Your task to perform on an android device: turn on javascript in the chrome app Image 0: 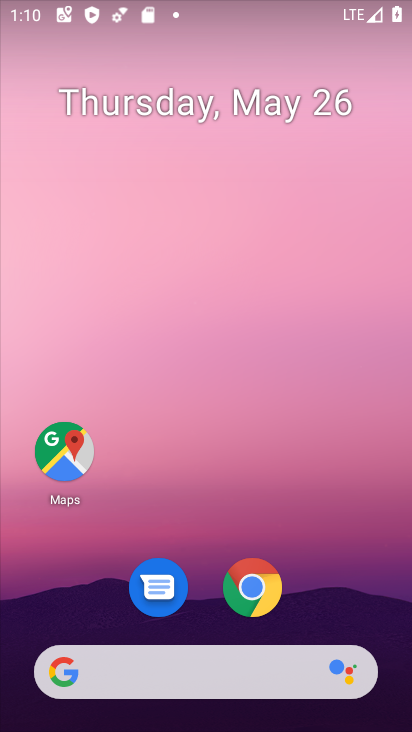
Step 0: drag from (331, 580) to (327, 154)
Your task to perform on an android device: turn on javascript in the chrome app Image 1: 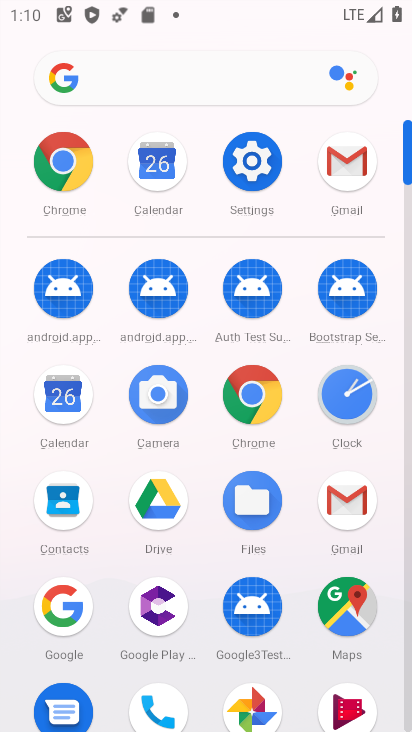
Step 1: click (254, 407)
Your task to perform on an android device: turn on javascript in the chrome app Image 2: 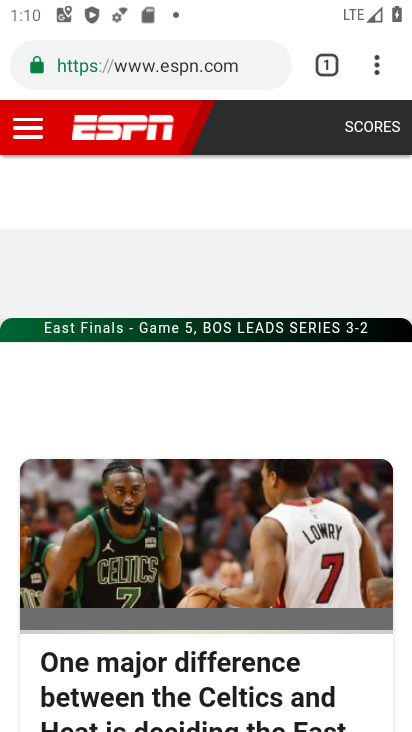
Step 2: click (377, 67)
Your task to perform on an android device: turn on javascript in the chrome app Image 3: 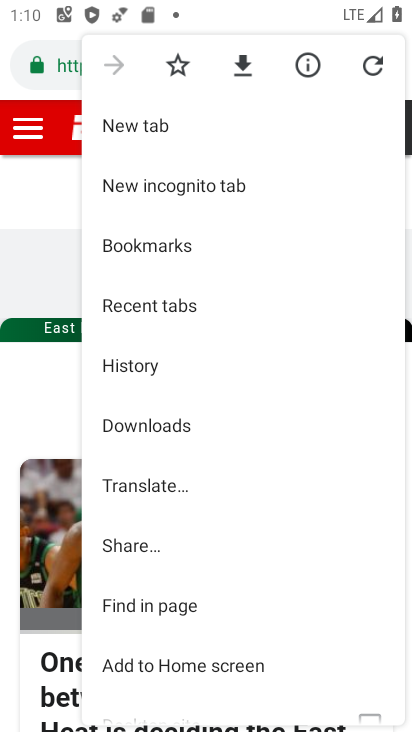
Step 3: drag from (278, 531) to (271, 390)
Your task to perform on an android device: turn on javascript in the chrome app Image 4: 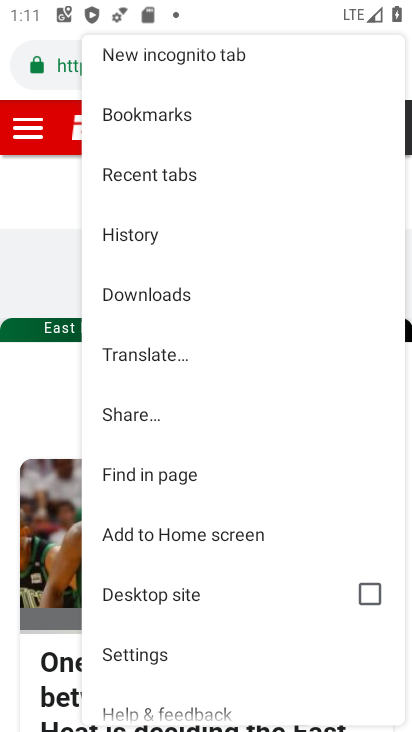
Step 4: drag from (288, 621) to (294, 467)
Your task to perform on an android device: turn on javascript in the chrome app Image 5: 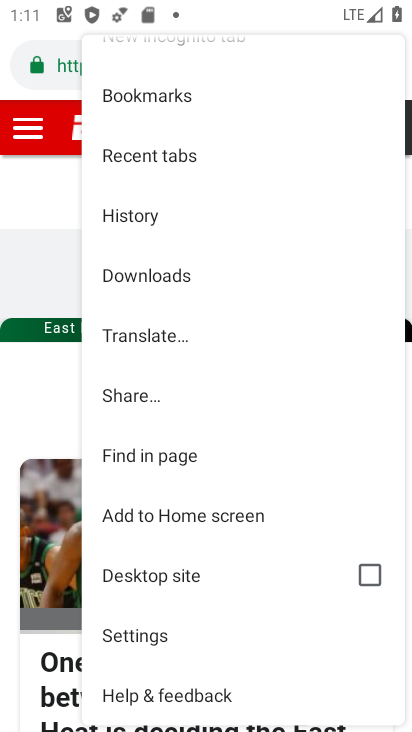
Step 5: click (146, 649)
Your task to perform on an android device: turn on javascript in the chrome app Image 6: 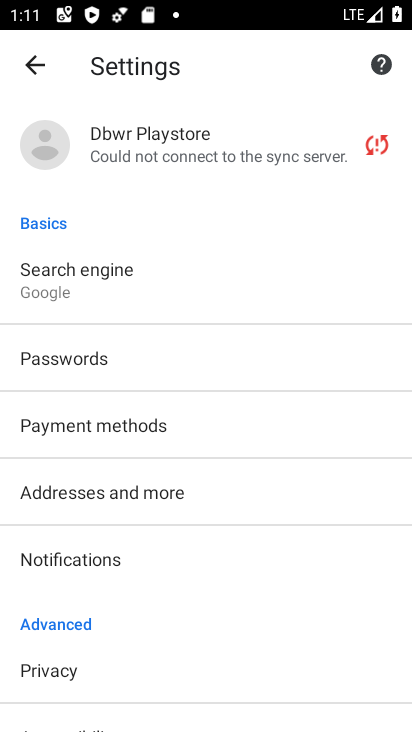
Step 6: drag from (288, 612) to (280, 437)
Your task to perform on an android device: turn on javascript in the chrome app Image 7: 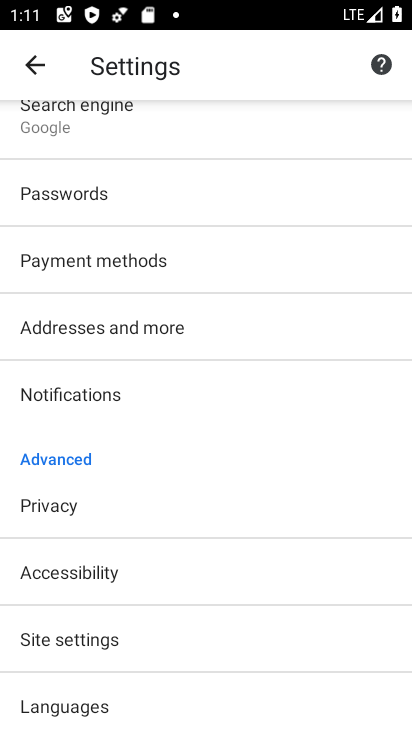
Step 7: drag from (276, 630) to (280, 445)
Your task to perform on an android device: turn on javascript in the chrome app Image 8: 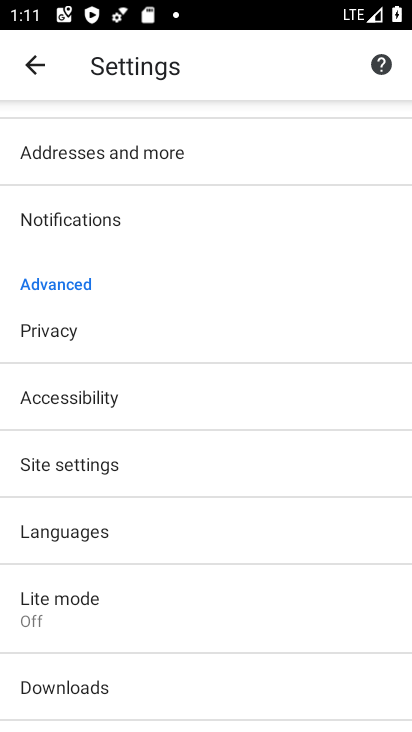
Step 8: drag from (284, 639) to (283, 495)
Your task to perform on an android device: turn on javascript in the chrome app Image 9: 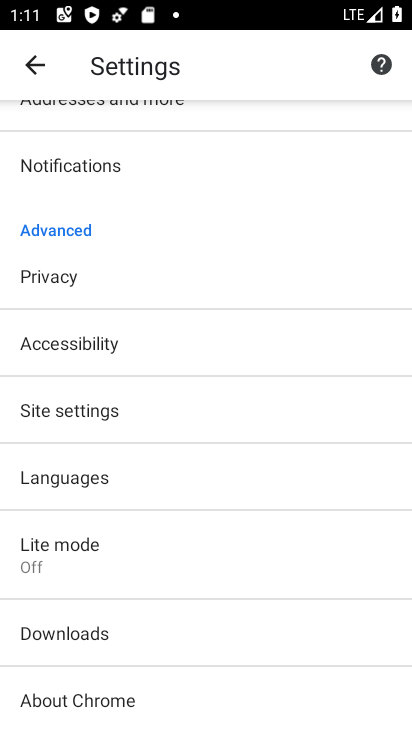
Step 9: drag from (223, 377) to (227, 510)
Your task to perform on an android device: turn on javascript in the chrome app Image 10: 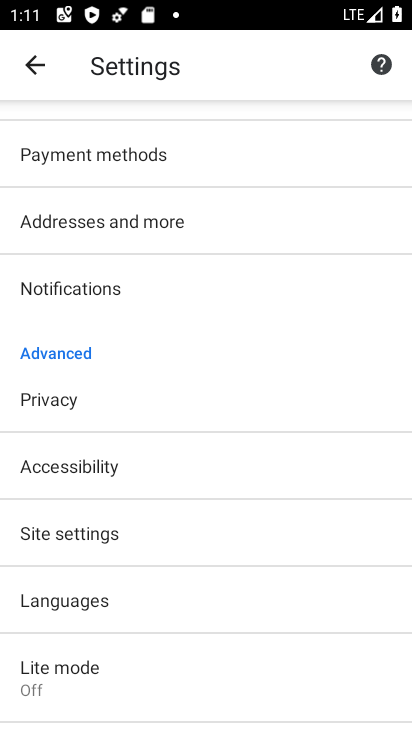
Step 10: drag from (251, 625) to (261, 417)
Your task to perform on an android device: turn on javascript in the chrome app Image 11: 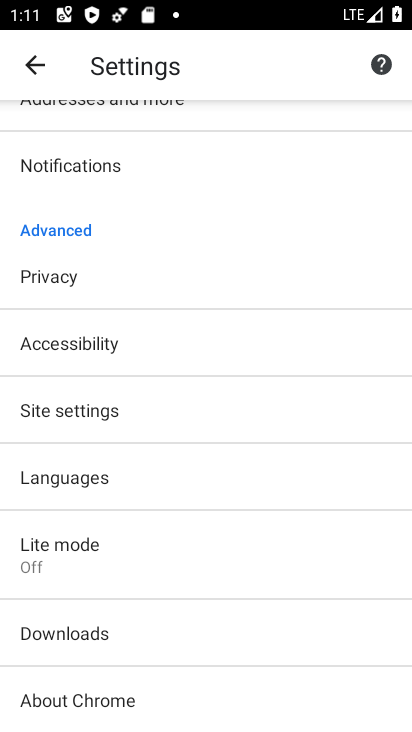
Step 11: drag from (295, 640) to (309, 476)
Your task to perform on an android device: turn on javascript in the chrome app Image 12: 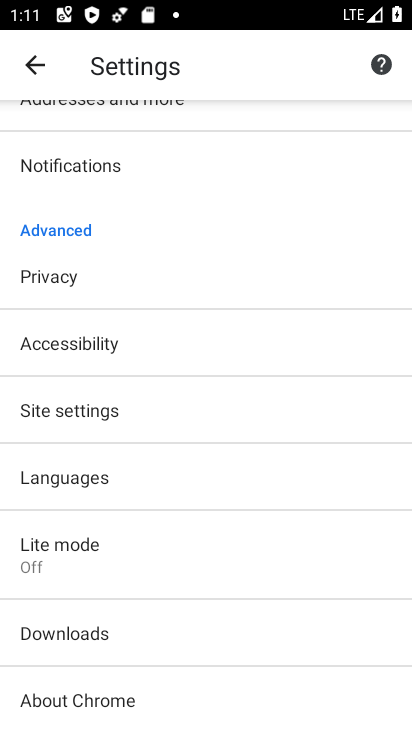
Step 12: click (155, 418)
Your task to perform on an android device: turn on javascript in the chrome app Image 13: 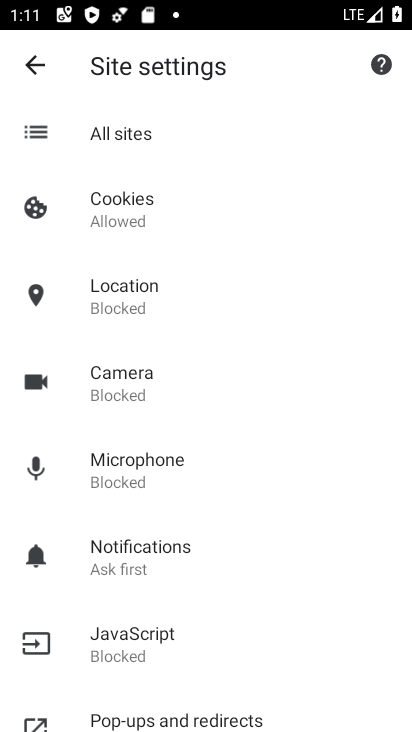
Step 13: drag from (293, 577) to (297, 419)
Your task to perform on an android device: turn on javascript in the chrome app Image 14: 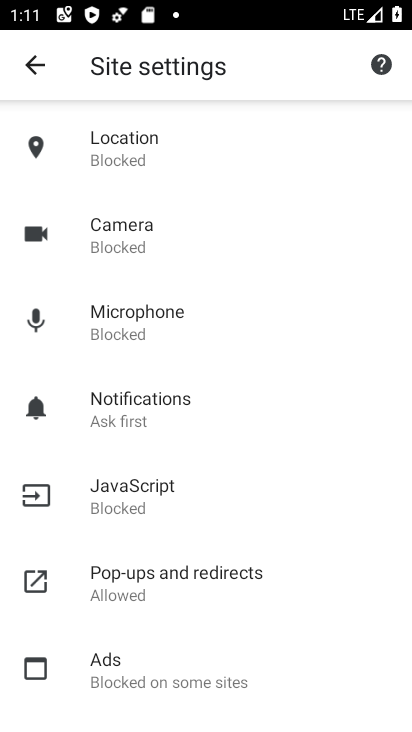
Step 14: drag from (292, 329) to (293, 422)
Your task to perform on an android device: turn on javascript in the chrome app Image 15: 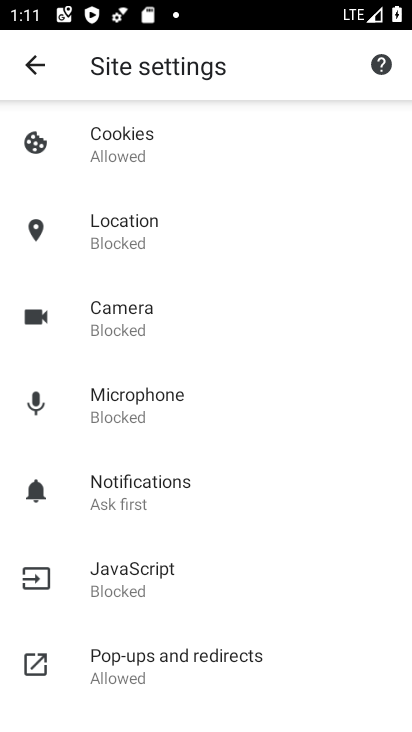
Step 15: drag from (299, 358) to (292, 423)
Your task to perform on an android device: turn on javascript in the chrome app Image 16: 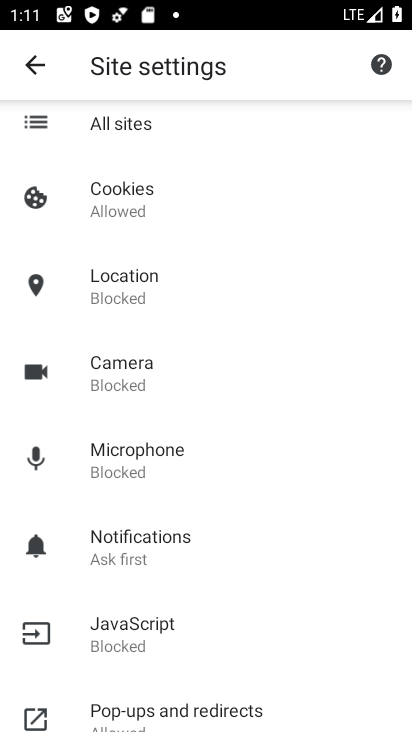
Step 16: drag from (294, 342) to (295, 417)
Your task to perform on an android device: turn on javascript in the chrome app Image 17: 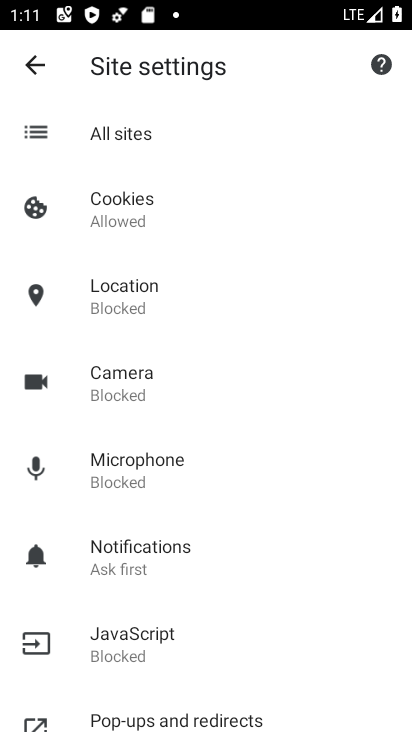
Step 17: drag from (308, 330) to (311, 433)
Your task to perform on an android device: turn on javascript in the chrome app Image 18: 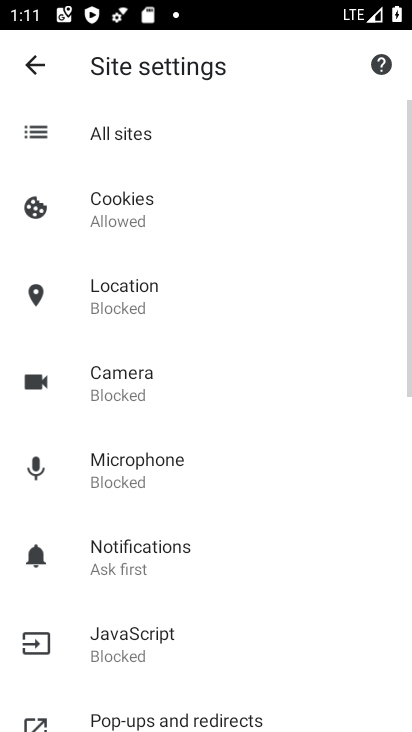
Step 18: drag from (302, 313) to (297, 446)
Your task to perform on an android device: turn on javascript in the chrome app Image 19: 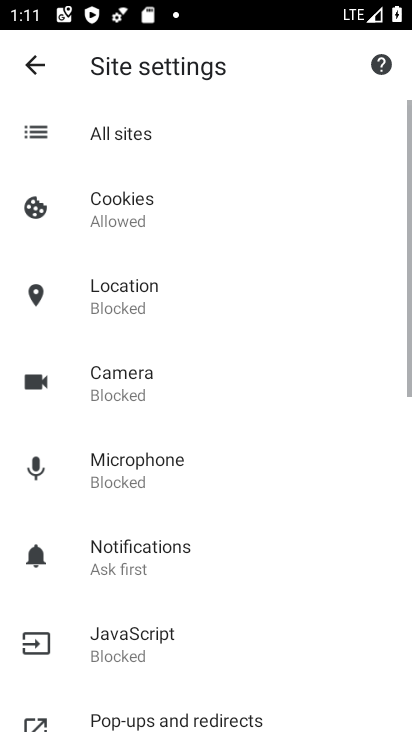
Step 19: drag from (265, 597) to (275, 457)
Your task to perform on an android device: turn on javascript in the chrome app Image 20: 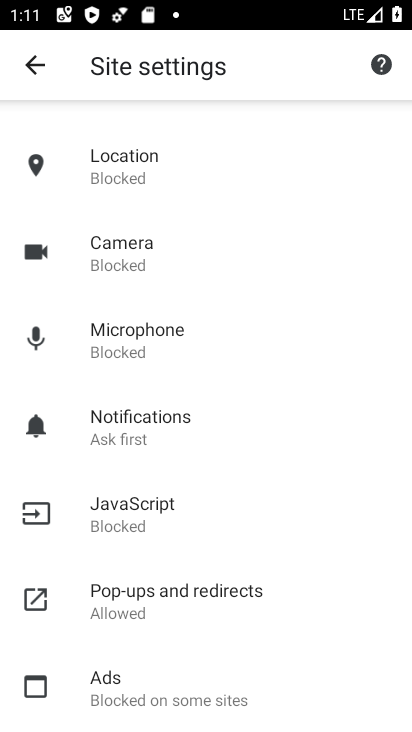
Step 20: click (141, 511)
Your task to perform on an android device: turn on javascript in the chrome app Image 21: 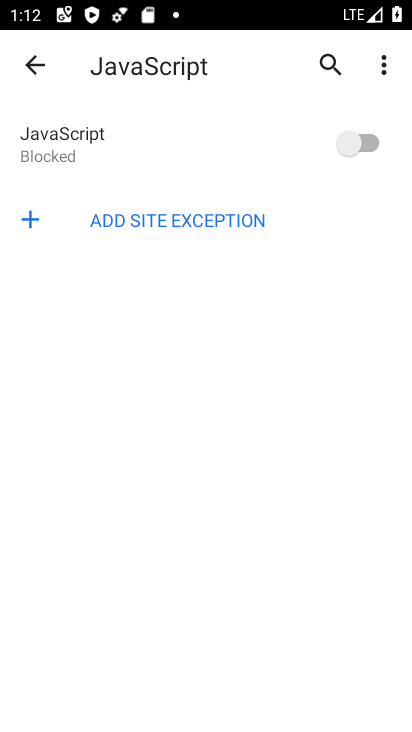
Step 21: click (344, 146)
Your task to perform on an android device: turn on javascript in the chrome app Image 22: 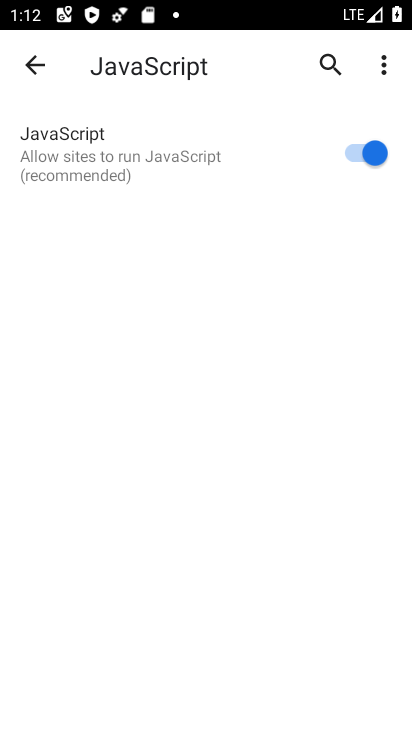
Step 22: task complete